Your task to perform on an android device: Open Reddit.com Image 0: 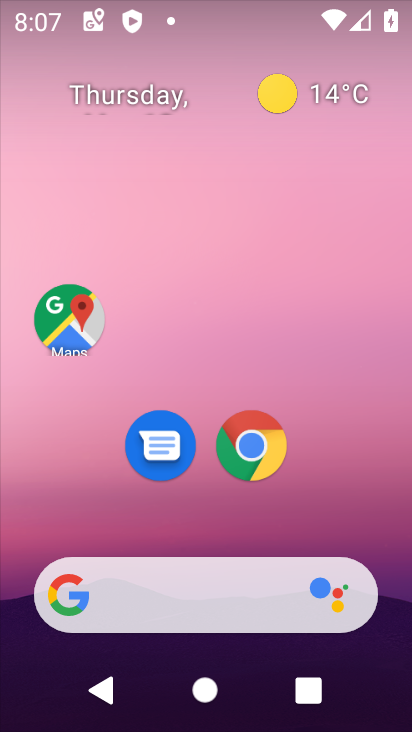
Step 0: click (256, 446)
Your task to perform on an android device: Open Reddit.com Image 1: 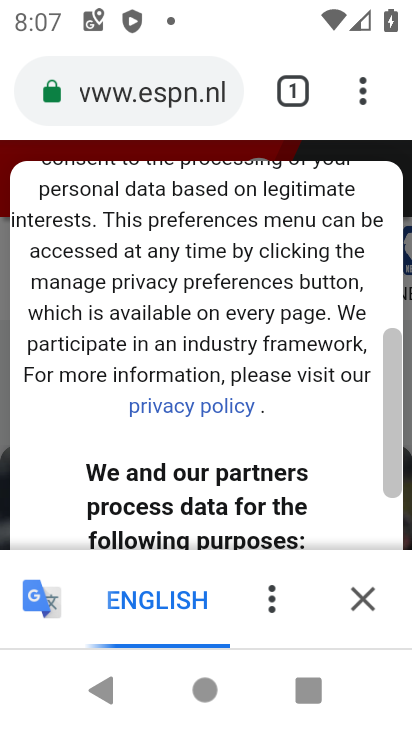
Step 1: click (359, 598)
Your task to perform on an android device: Open Reddit.com Image 2: 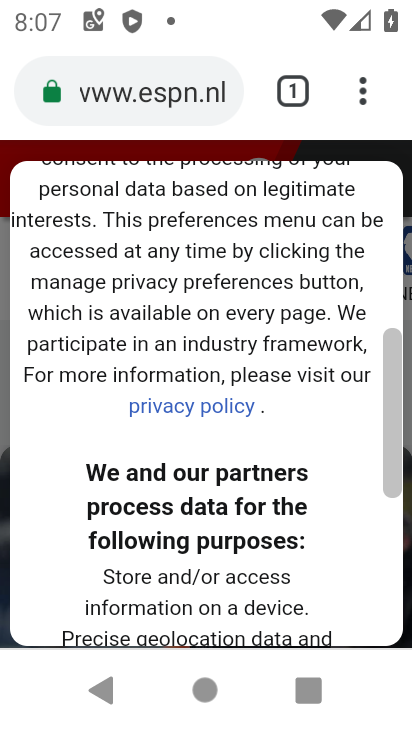
Step 2: click (362, 99)
Your task to perform on an android device: Open Reddit.com Image 3: 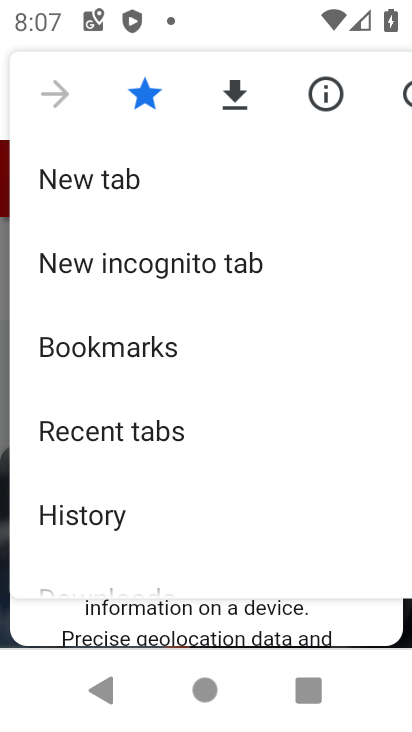
Step 3: click (118, 173)
Your task to perform on an android device: Open Reddit.com Image 4: 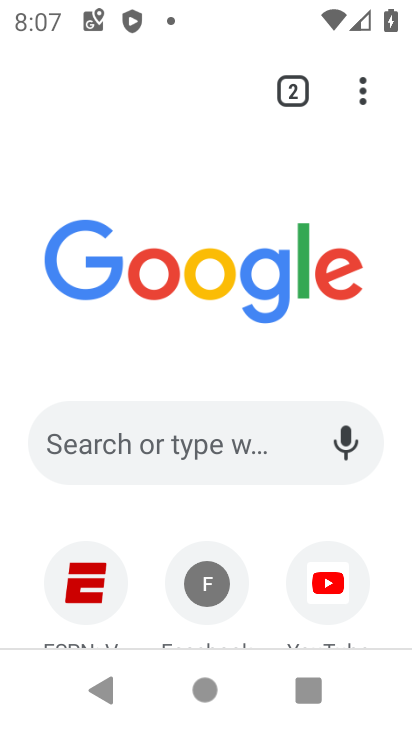
Step 4: click (175, 440)
Your task to perform on an android device: Open Reddit.com Image 5: 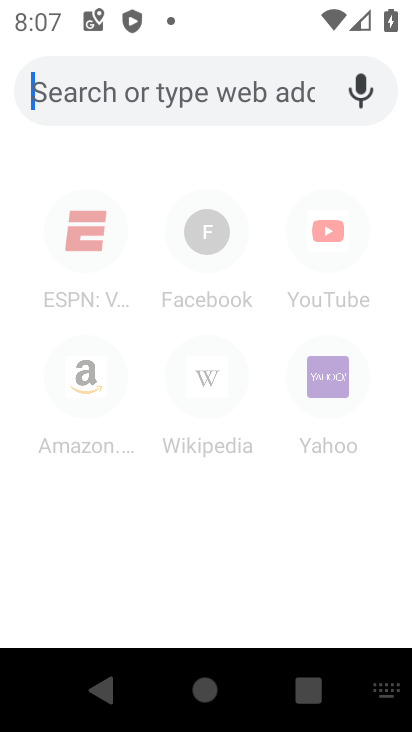
Step 5: type "Reddit.com"
Your task to perform on an android device: Open Reddit.com Image 6: 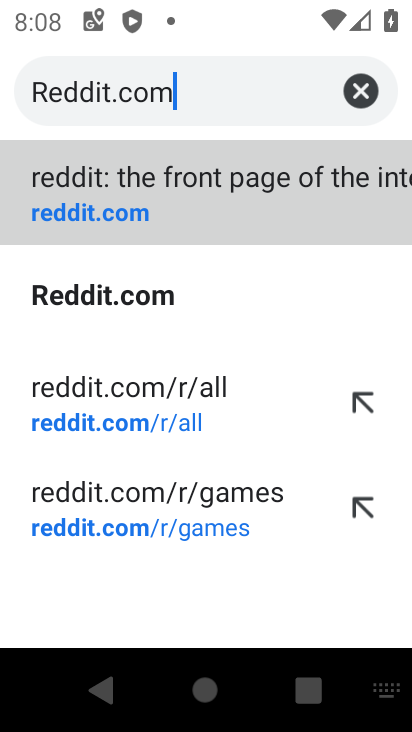
Step 6: click (149, 172)
Your task to perform on an android device: Open Reddit.com Image 7: 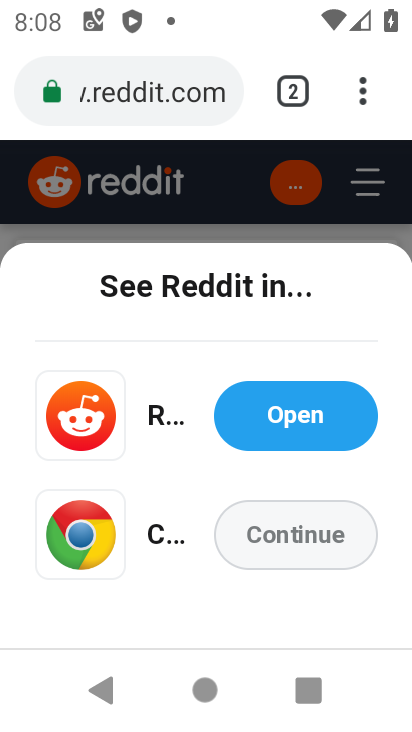
Step 7: task complete